Your task to perform on an android device: Open the Play Movies app and select the watchlist tab. Image 0: 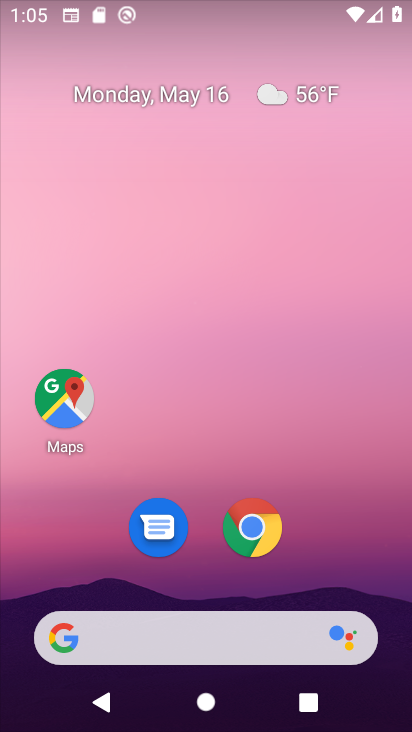
Step 0: drag from (193, 630) to (115, 16)
Your task to perform on an android device: Open the Play Movies app and select the watchlist tab. Image 1: 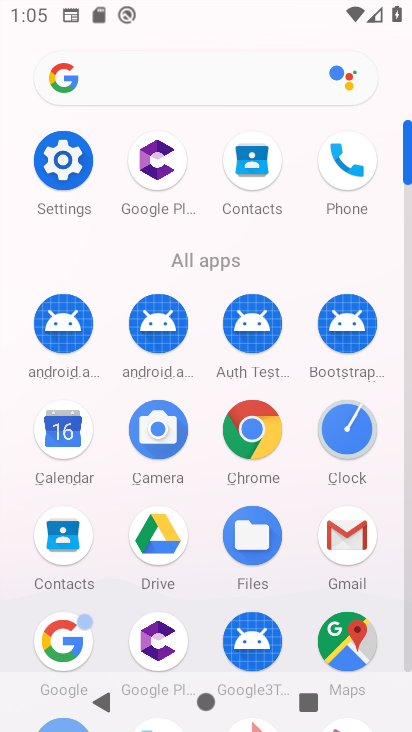
Step 1: drag from (286, 629) to (253, 126)
Your task to perform on an android device: Open the Play Movies app and select the watchlist tab. Image 2: 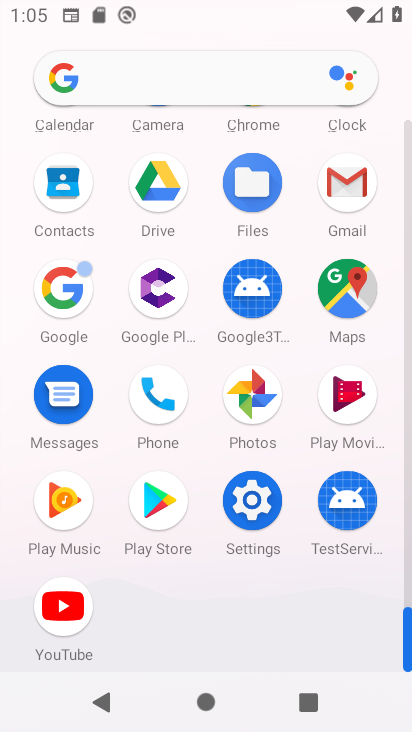
Step 2: click (355, 391)
Your task to perform on an android device: Open the Play Movies app and select the watchlist tab. Image 3: 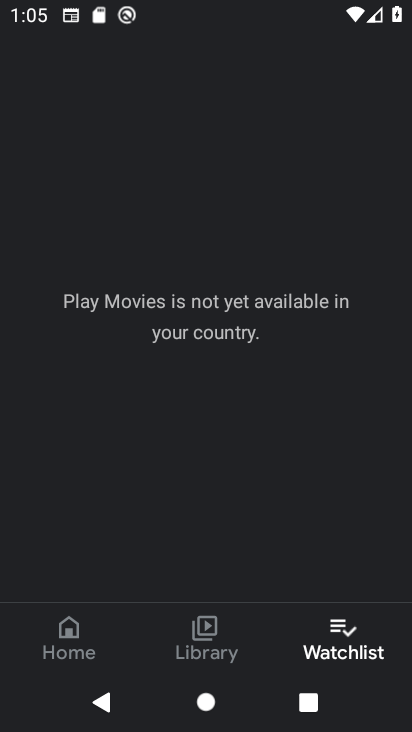
Step 3: task complete